Your task to perform on an android device: Open Google Maps and go to "Timeline" Image 0: 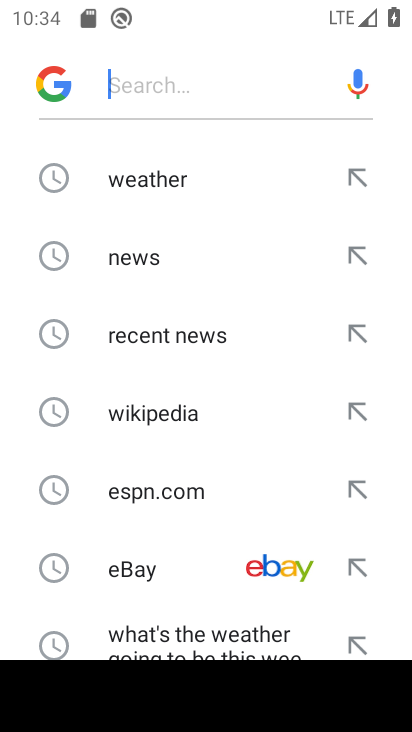
Step 0: press home button
Your task to perform on an android device: Open Google Maps and go to "Timeline" Image 1: 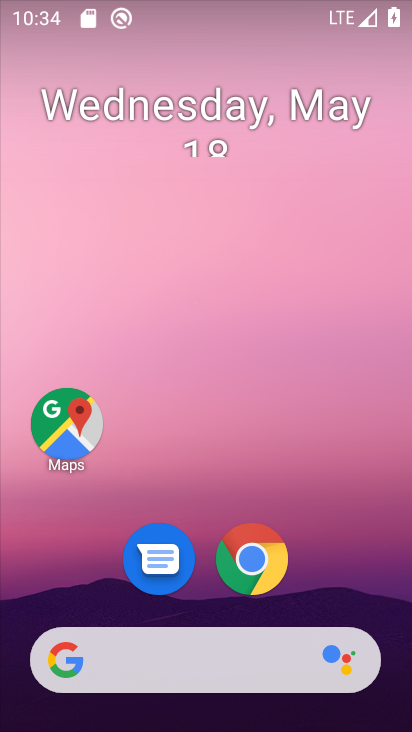
Step 1: drag from (209, 611) to (266, 197)
Your task to perform on an android device: Open Google Maps and go to "Timeline" Image 2: 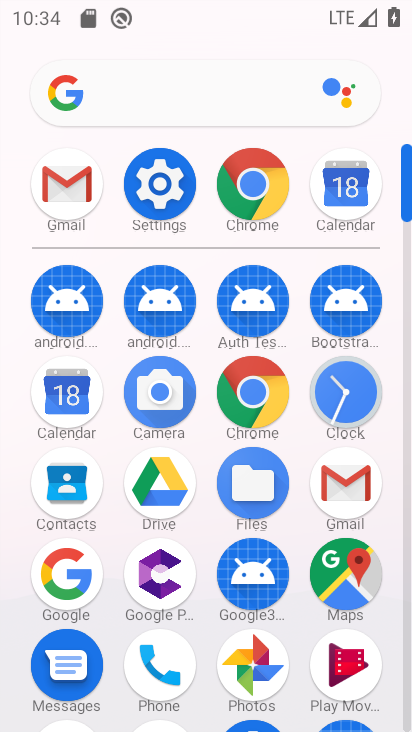
Step 2: click (325, 586)
Your task to perform on an android device: Open Google Maps and go to "Timeline" Image 3: 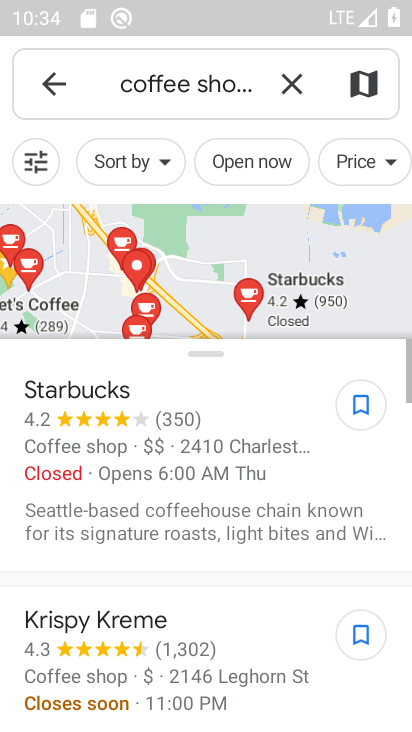
Step 3: click (52, 91)
Your task to perform on an android device: Open Google Maps and go to "Timeline" Image 4: 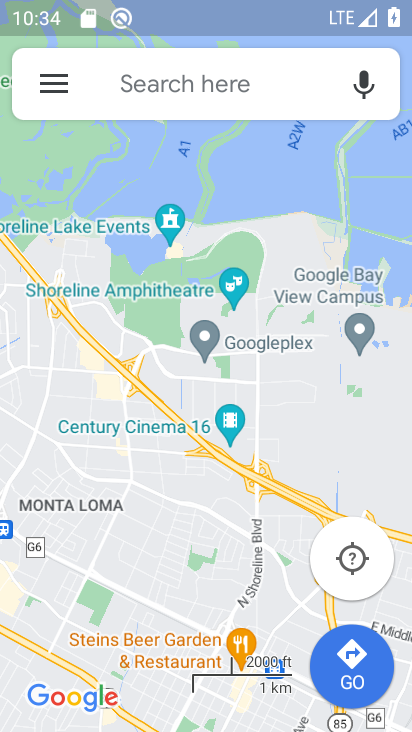
Step 4: click (53, 90)
Your task to perform on an android device: Open Google Maps and go to "Timeline" Image 5: 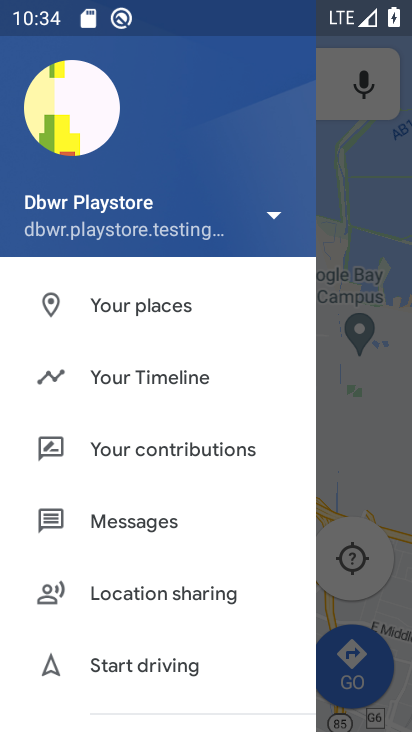
Step 5: click (142, 389)
Your task to perform on an android device: Open Google Maps and go to "Timeline" Image 6: 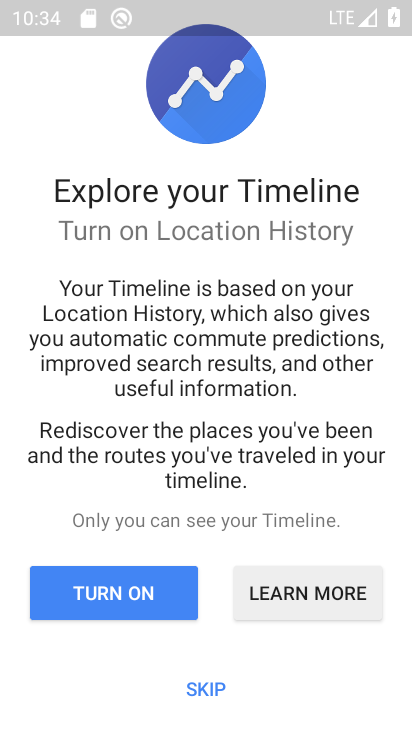
Step 6: click (213, 681)
Your task to perform on an android device: Open Google Maps and go to "Timeline" Image 7: 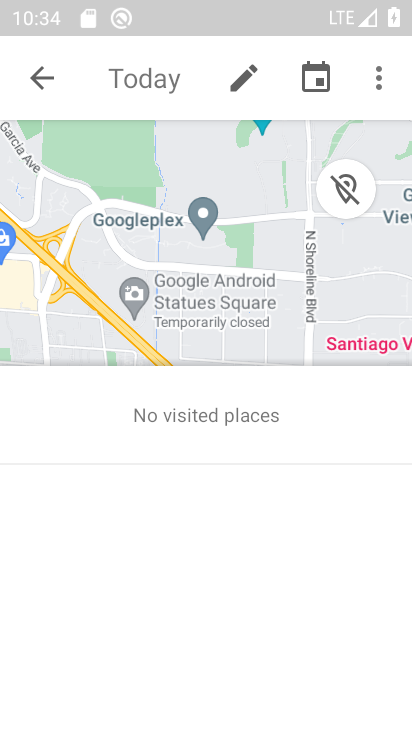
Step 7: task complete